Your task to perform on an android device: see tabs open on other devices in the chrome app Image 0: 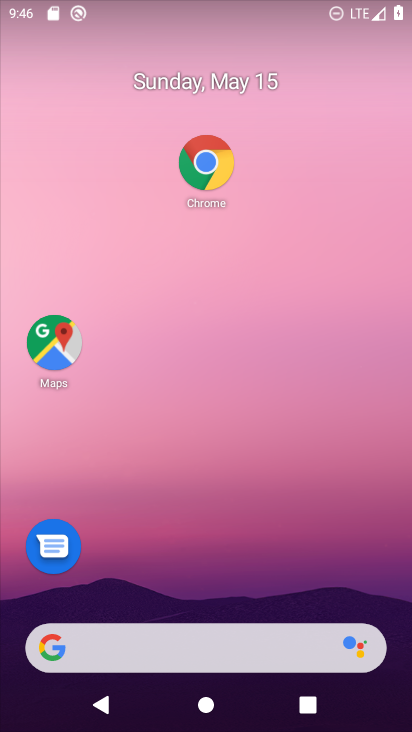
Step 0: drag from (297, 620) to (295, 182)
Your task to perform on an android device: see tabs open on other devices in the chrome app Image 1: 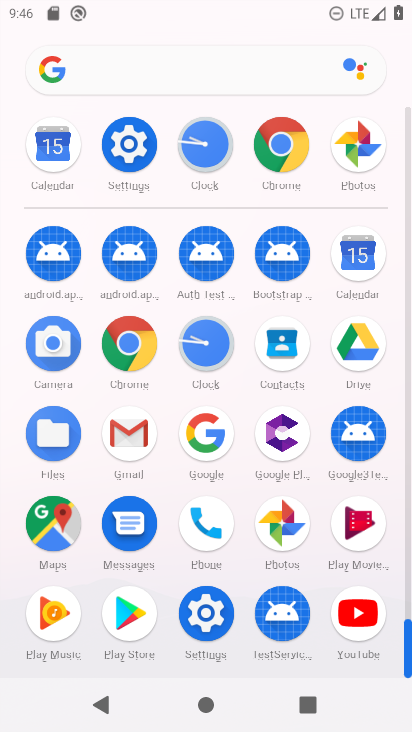
Step 1: click (126, 342)
Your task to perform on an android device: see tabs open on other devices in the chrome app Image 2: 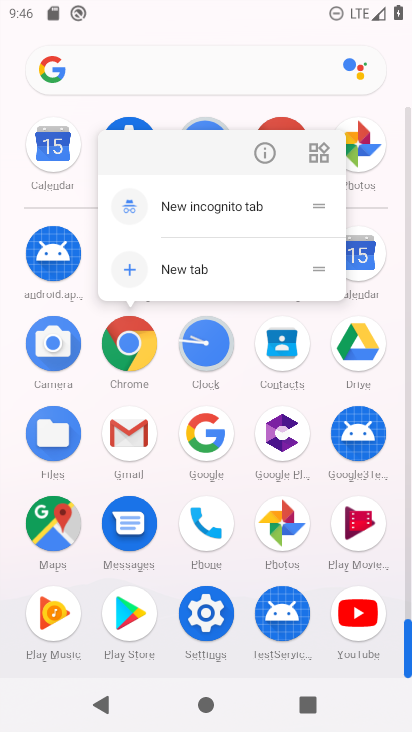
Step 2: click (114, 334)
Your task to perform on an android device: see tabs open on other devices in the chrome app Image 3: 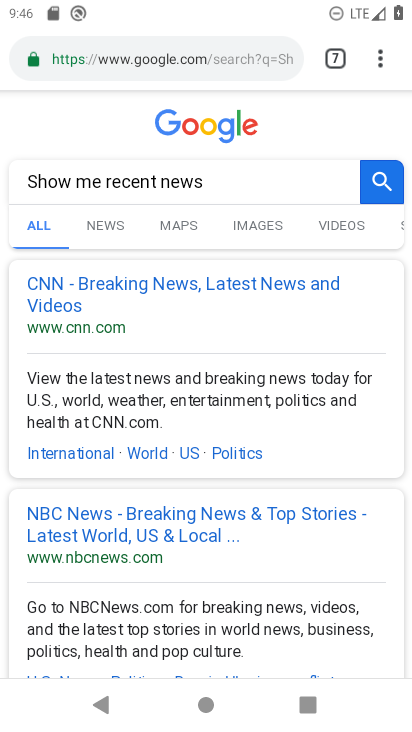
Step 3: click (388, 64)
Your task to perform on an android device: see tabs open on other devices in the chrome app Image 4: 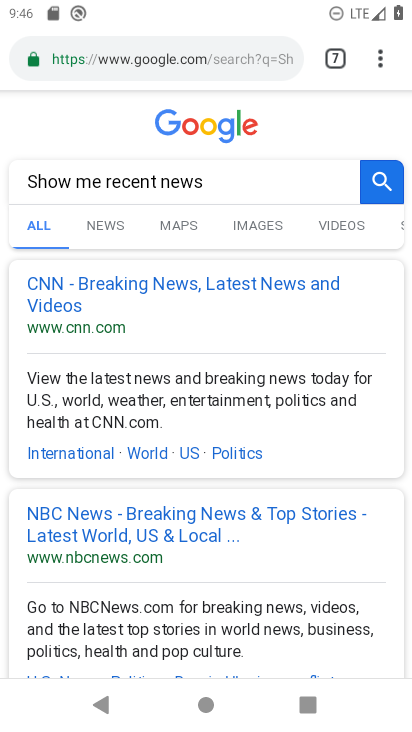
Step 4: click (367, 68)
Your task to perform on an android device: see tabs open on other devices in the chrome app Image 5: 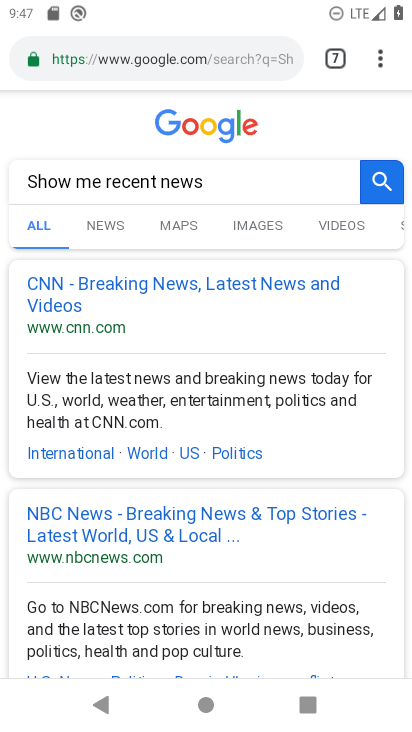
Step 5: click (371, 59)
Your task to perform on an android device: see tabs open on other devices in the chrome app Image 6: 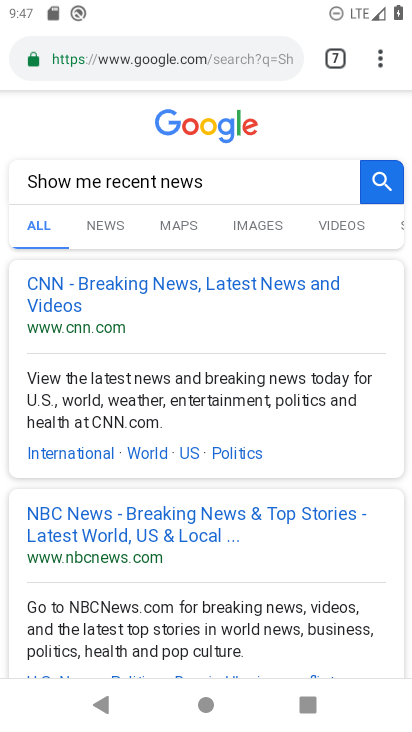
Step 6: click (366, 52)
Your task to perform on an android device: see tabs open on other devices in the chrome app Image 7: 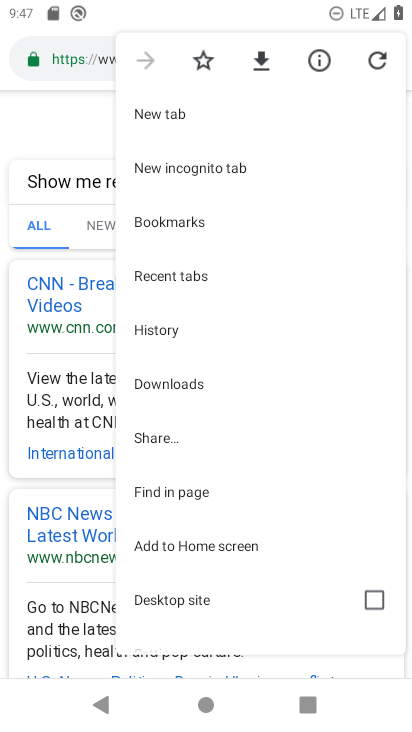
Step 7: click (169, 327)
Your task to perform on an android device: see tabs open on other devices in the chrome app Image 8: 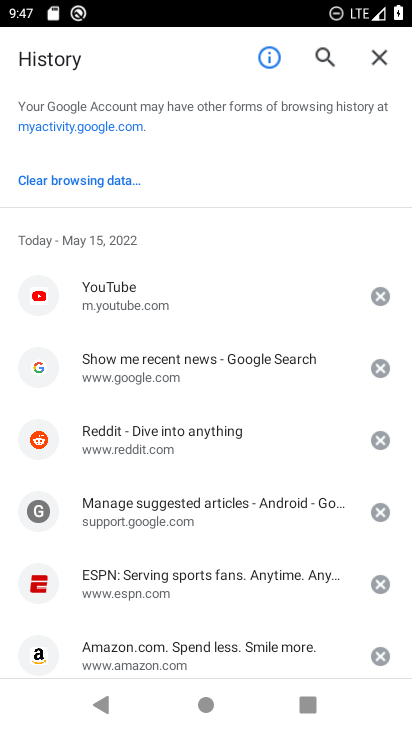
Step 8: drag from (164, 616) to (228, 222)
Your task to perform on an android device: see tabs open on other devices in the chrome app Image 9: 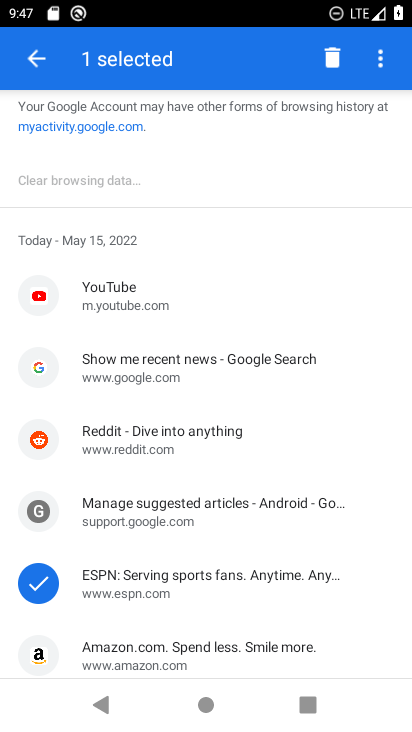
Step 9: click (44, 573)
Your task to perform on an android device: see tabs open on other devices in the chrome app Image 10: 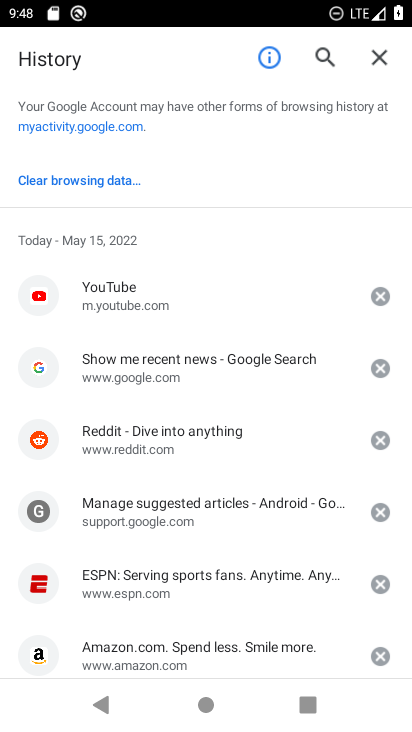
Step 10: task complete